Your task to perform on an android device: install app "Firefox Browser" Image 0: 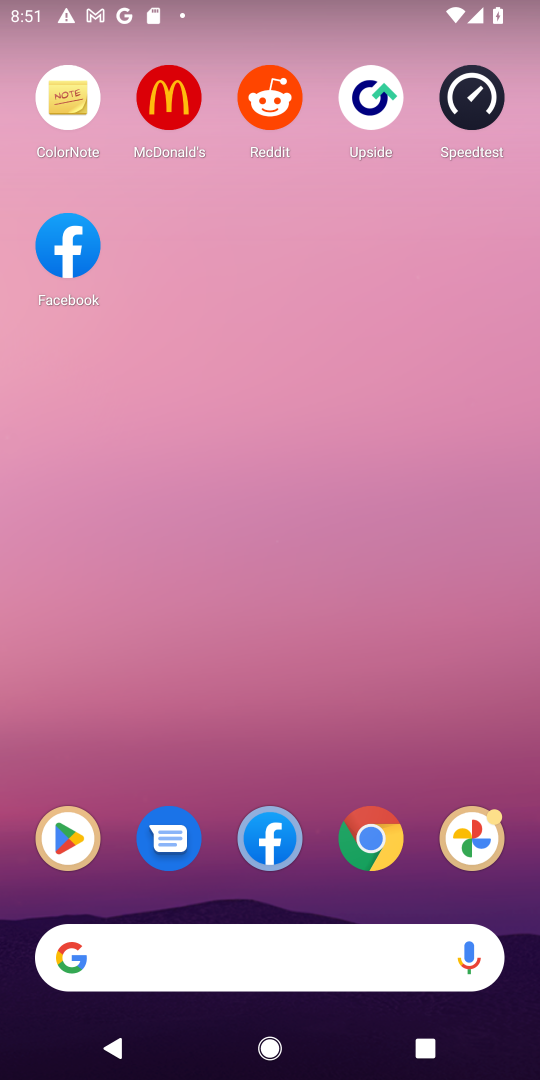
Step 0: drag from (314, 752) to (328, 73)
Your task to perform on an android device: install app "Firefox Browser" Image 1: 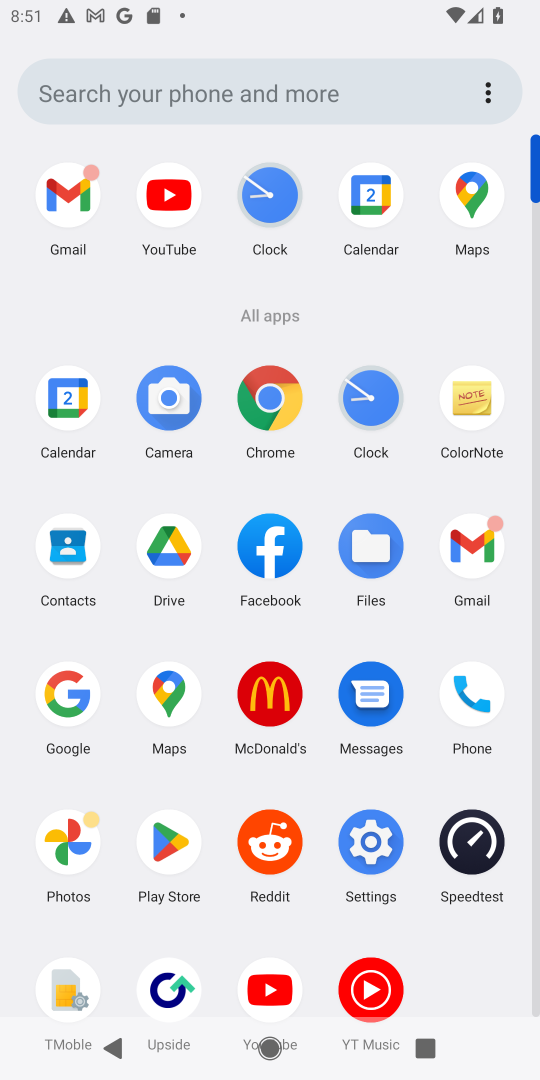
Step 1: click (168, 838)
Your task to perform on an android device: install app "Firefox Browser" Image 2: 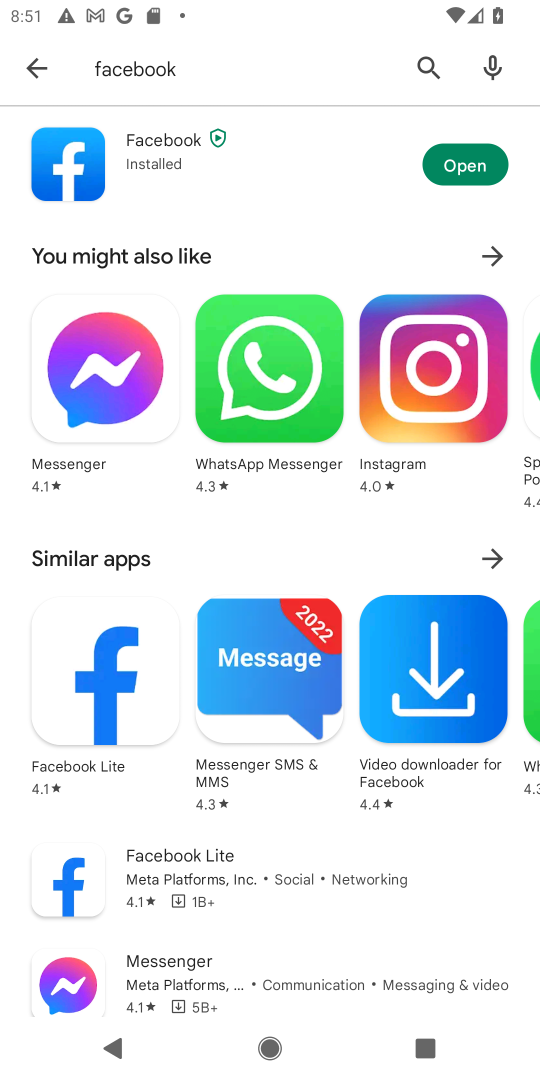
Step 2: click (425, 65)
Your task to perform on an android device: install app "Firefox Browser" Image 3: 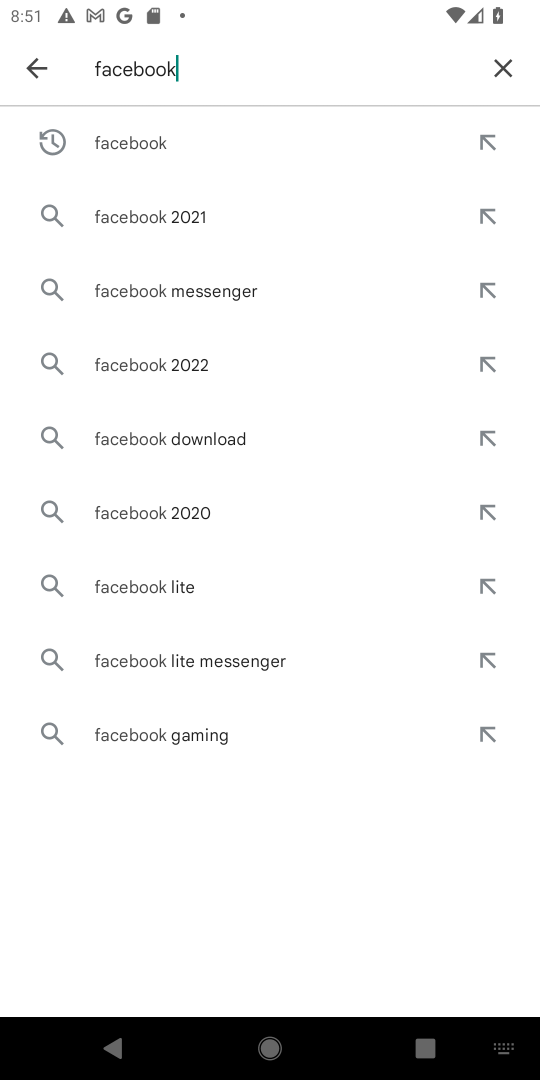
Step 3: click (495, 67)
Your task to perform on an android device: install app "Firefox Browser" Image 4: 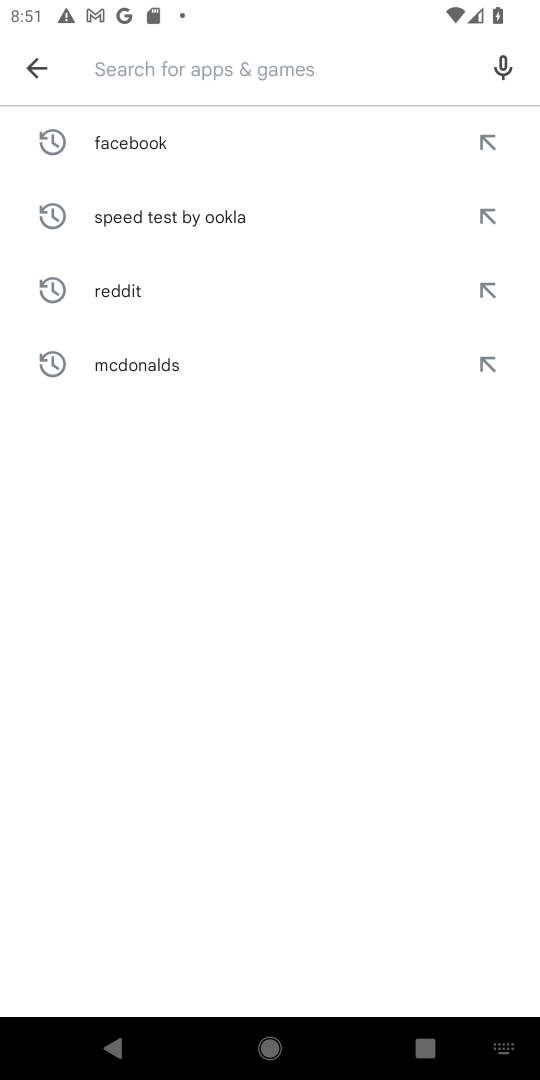
Step 4: type "firefox browser"
Your task to perform on an android device: install app "Firefox Browser" Image 5: 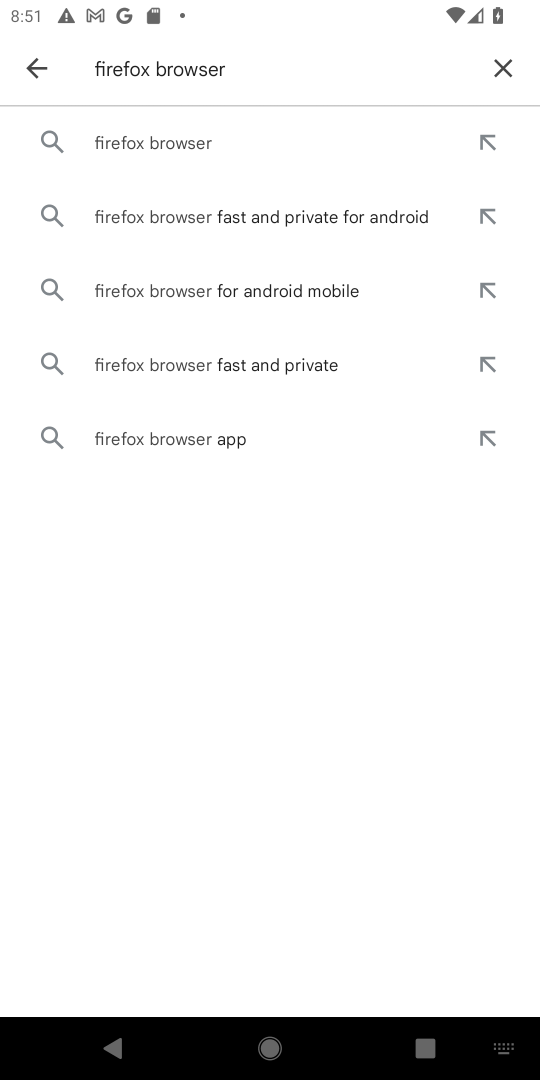
Step 5: click (268, 145)
Your task to perform on an android device: install app "Firefox Browser" Image 6: 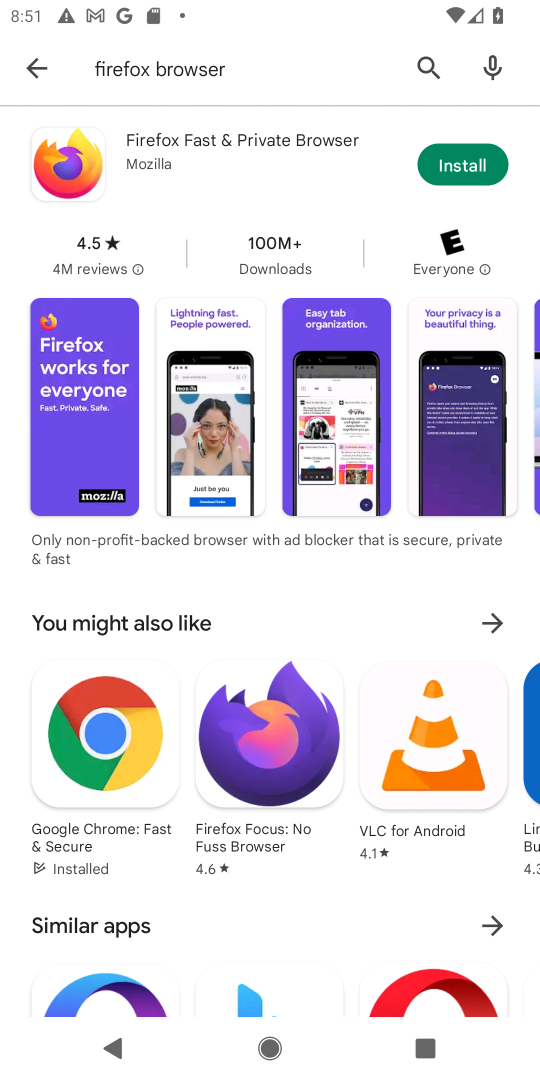
Step 6: click (507, 171)
Your task to perform on an android device: install app "Firefox Browser" Image 7: 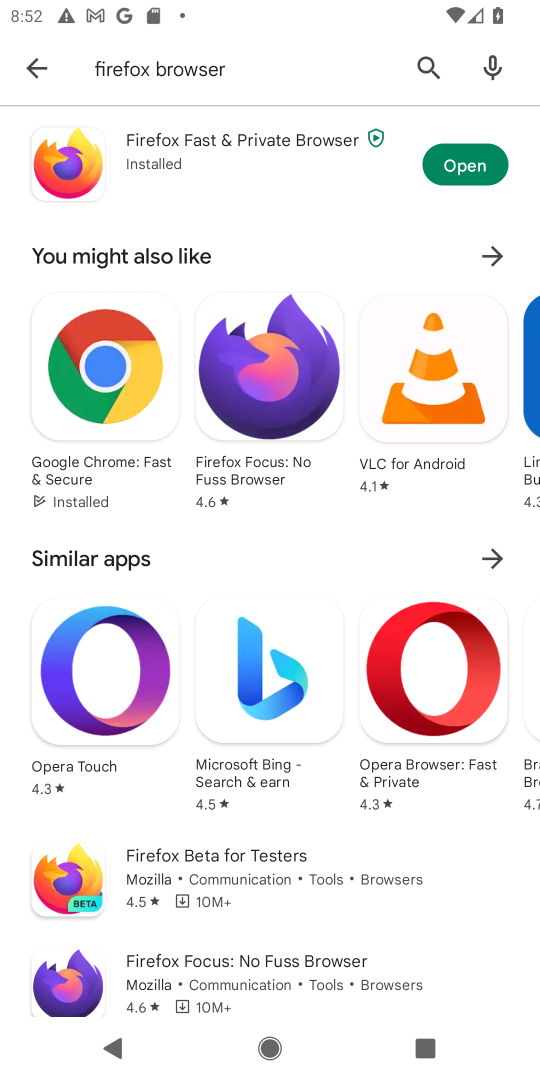
Step 7: task complete